Your task to perform on an android device: Go to accessibility settings Image 0: 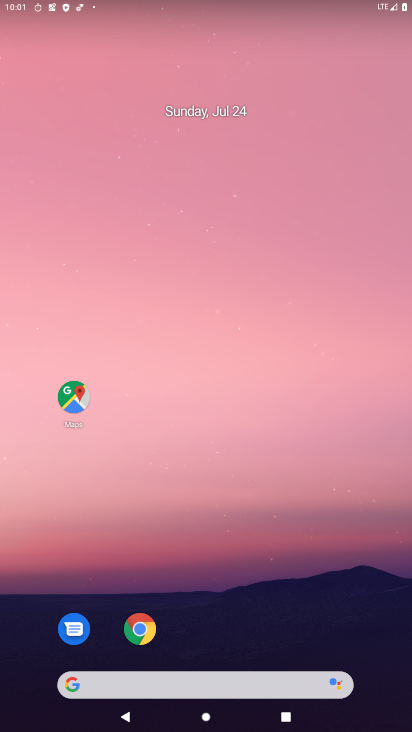
Step 0: press home button
Your task to perform on an android device: Go to accessibility settings Image 1: 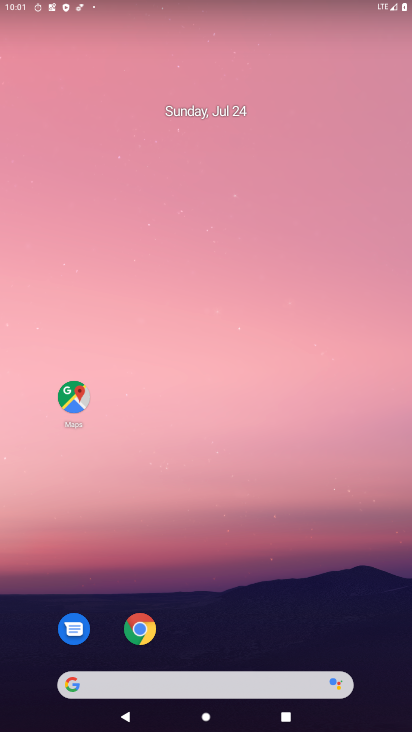
Step 1: drag from (269, 624) to (258, 173)
Your task to perform on an android device: Go to accessibility settings Image 2: 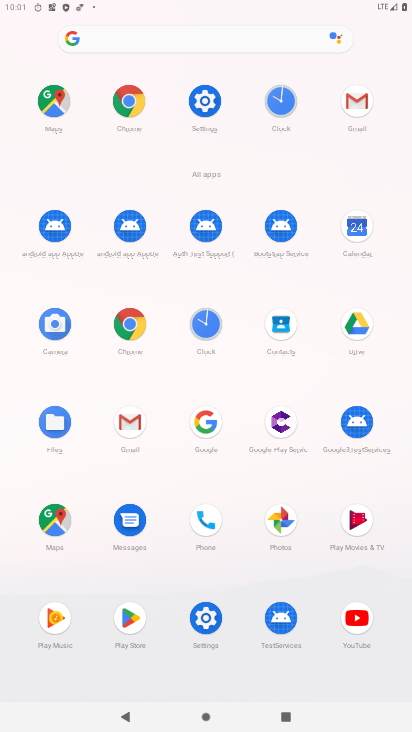
Step 2: click (208, 103)
Your task to perform on an android device: Go to accessibility settings Image 3: 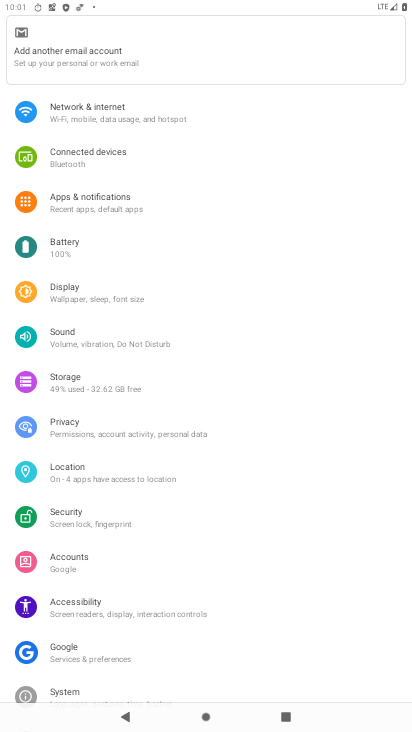
Step 3: click (97, 611)
Your task to perform on an android device: Go to accessibility settings Image 4: 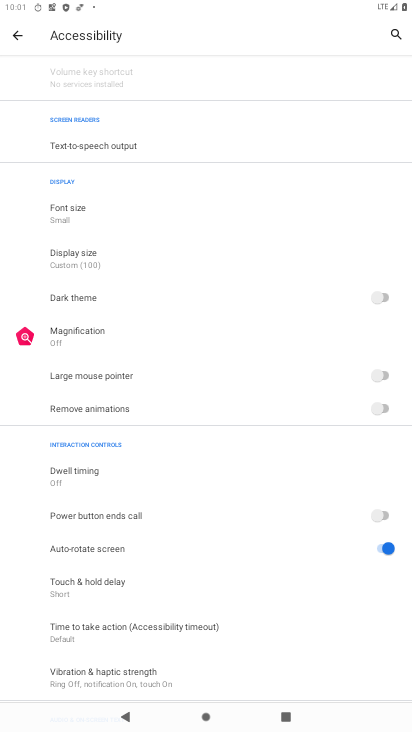
Step 4: task complete